Your task to perform on an android device: When is my next appointment? Image 0: 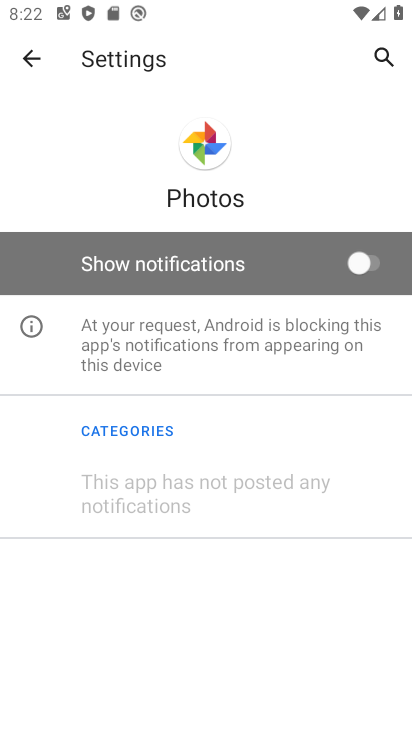
Step 0: press home button
Your task to perform on an android device: When is my next appointment? Image 1: 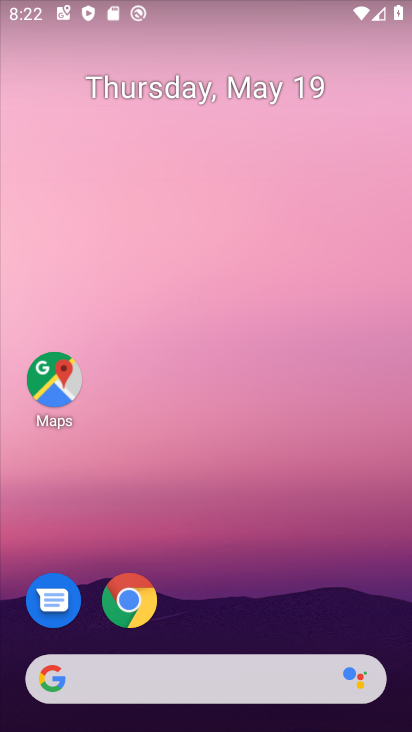
Step 1: drag from (295, 562) to (212, 9)
Your task to perform on an android device: When is my next appointment? Image 2: 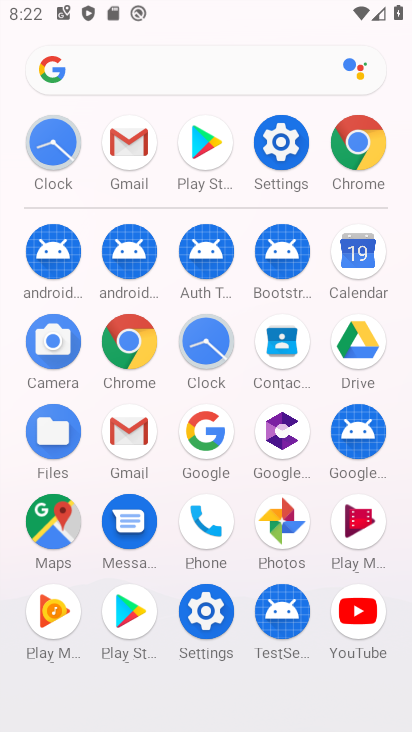
Step 2: click (355, 262)
Your task to perform on an android device: When is my next appointment? Image 3: 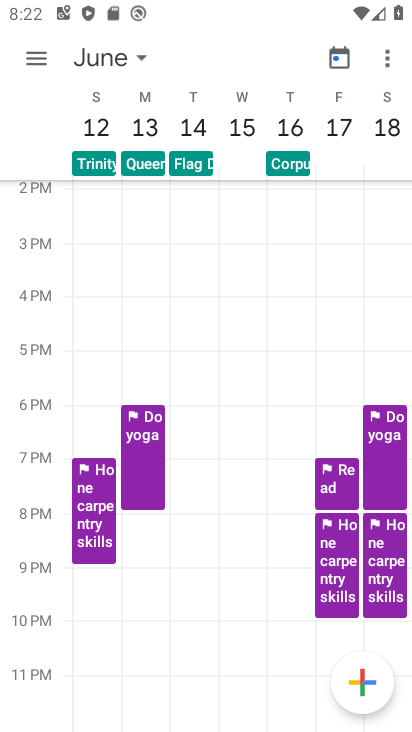
Step 3: click (331, 57)
Your task to perform on an android device: When is my next appointment? Image 4: 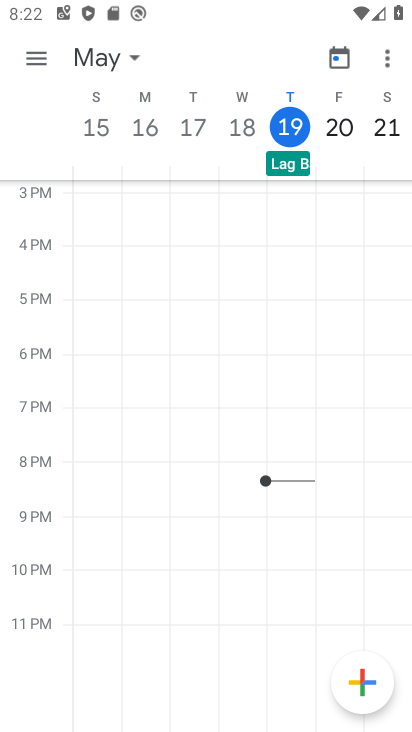
Step 4: click (22, 56)
Your task to perform on an android device: When is my next appointment? Image 5: 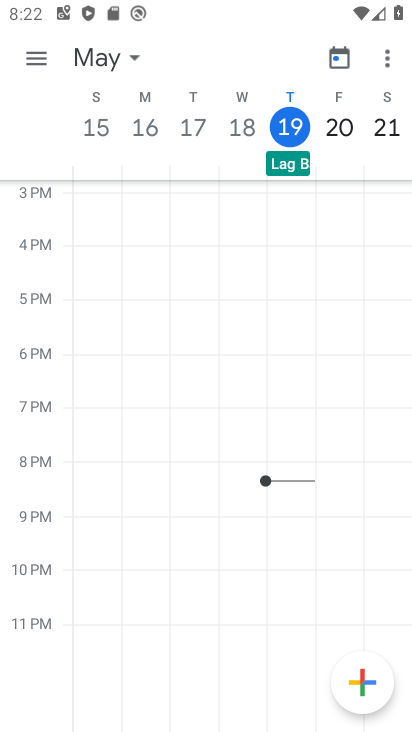
Step 5: click (33, 64)
Your task to perform on an android device: When is my next appointment? Image 6: 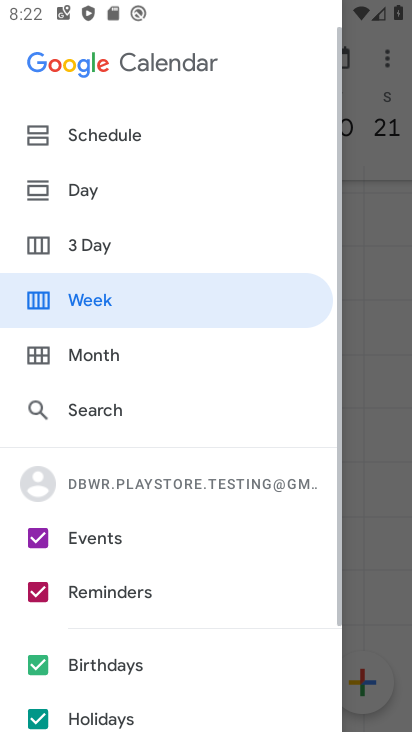
Step 6: click (78, 146)
Your task to perform on an android device: When is my next appointment? Image 7: 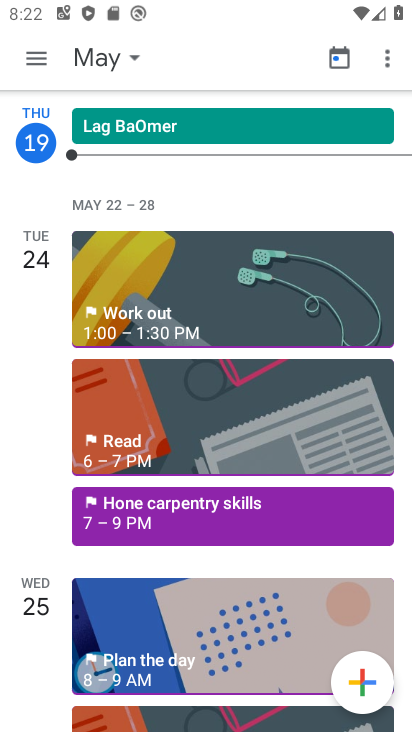
Step 7: drag from (156, 352) to (177, 454)
Your task to perform on an android device: When is my next appointment? Image 8: 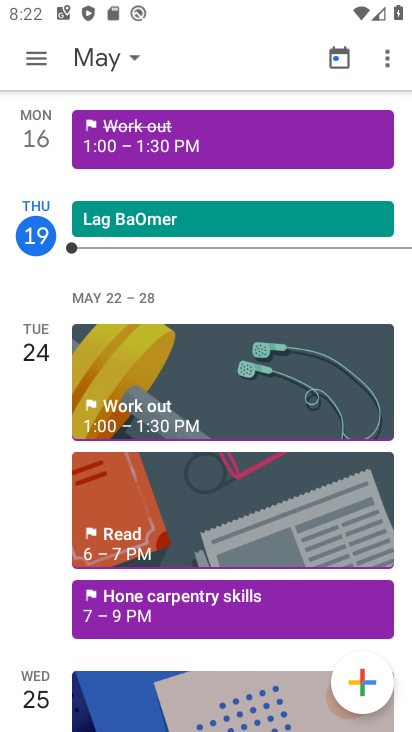
Step 8: click (70, 248)
Your task to perform on an android device: When is my next appointment? Image 9: 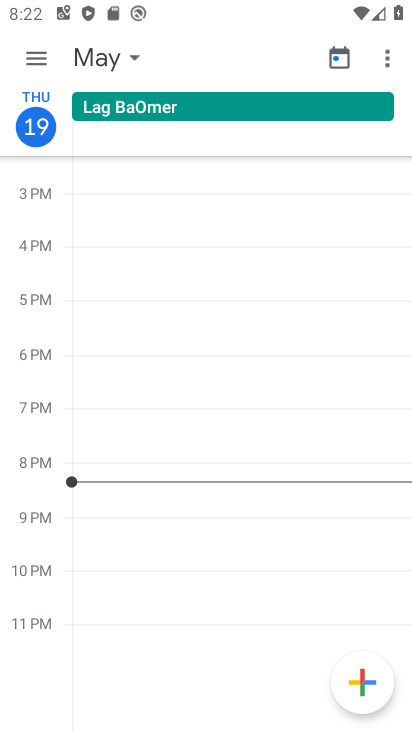
Step 9: click (74, 481)
Your task to perform on an android device: When is my next appointment? Image 10: 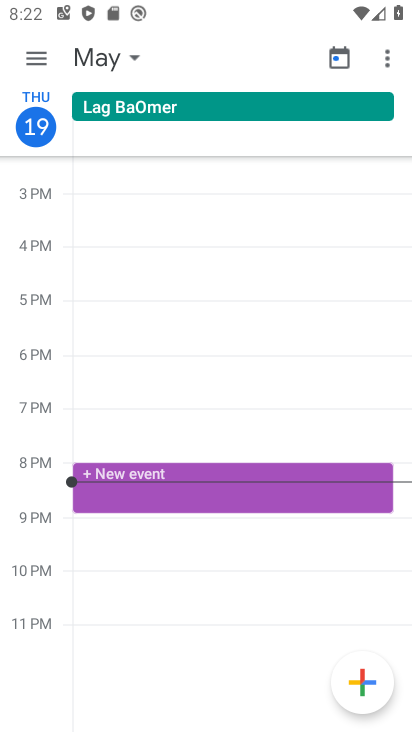
Step 10: click (141, 445)
Your task to perform on an android device: When is my next appointment? Image 11: 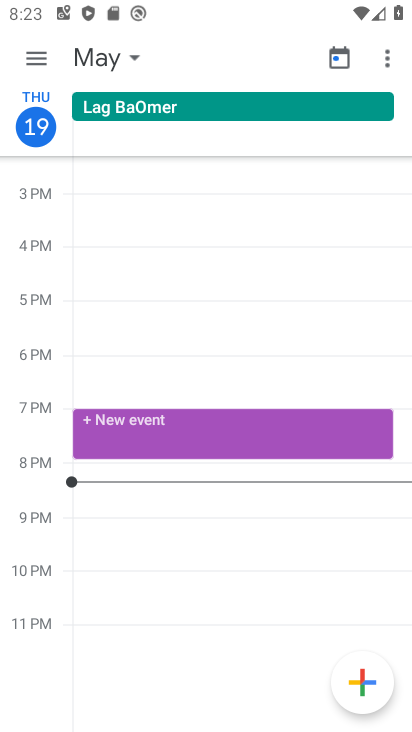
Step 11: click (35, 64)
Your task to perform on an android device: When is my next appointment? Image 12: 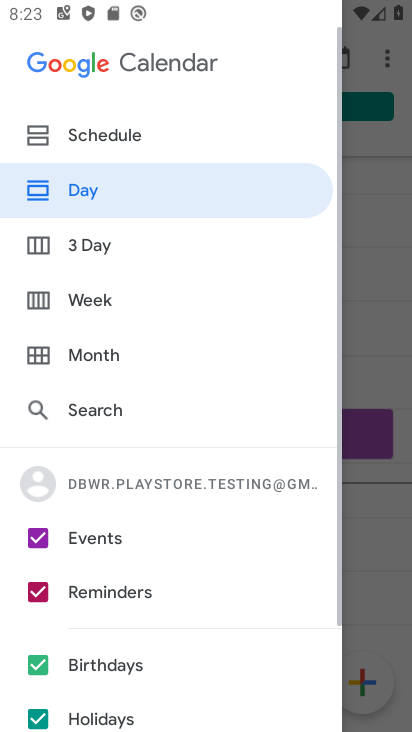
Step 12: click (58, 128)
Your task to perform on an android device: When is my next appointment? Image 13: 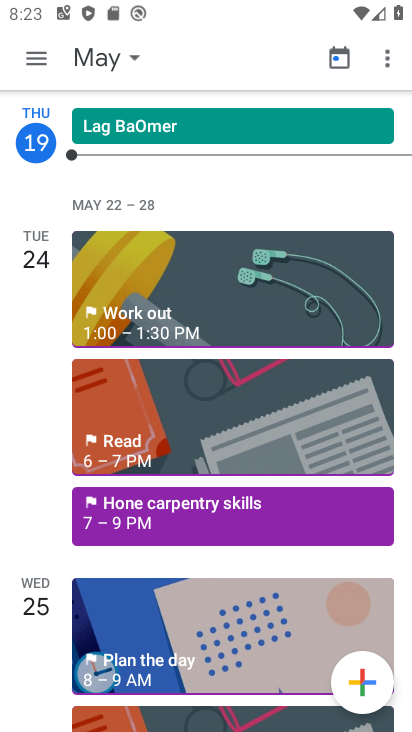
Step 13: drag from (162, 242) to (199, 331)
Your task to perform on an android device: When is my next appointment? Image 14: 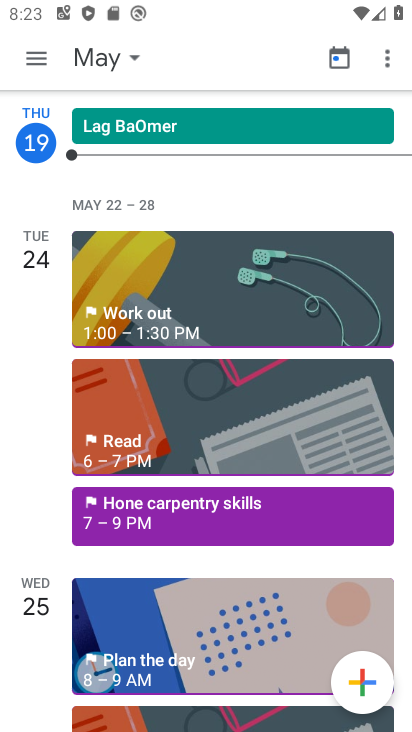
Step 14: click (113, 214)
Your task to perform on an android device: When is my next appointment? Image 15: 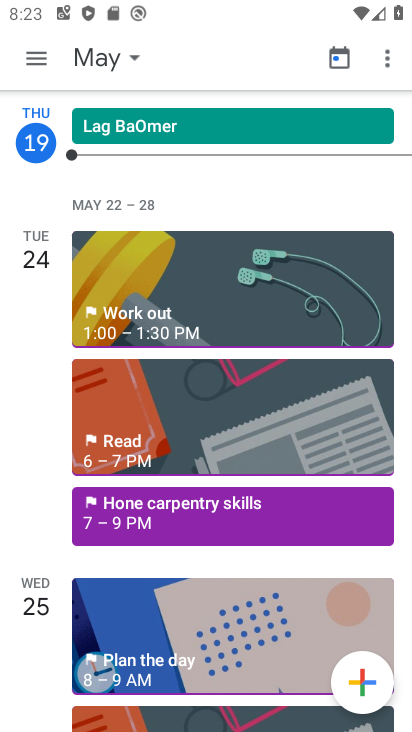
Step 15: click (108, 207)
Your task to perform on an android device: When is my next appointment? Image 16: 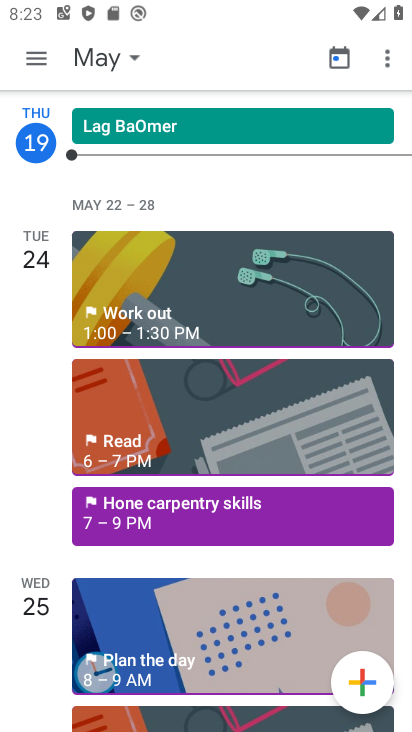
Step 16: click (74, 205)
Your task to perform on an android device: When is my next appointment? Image 17: 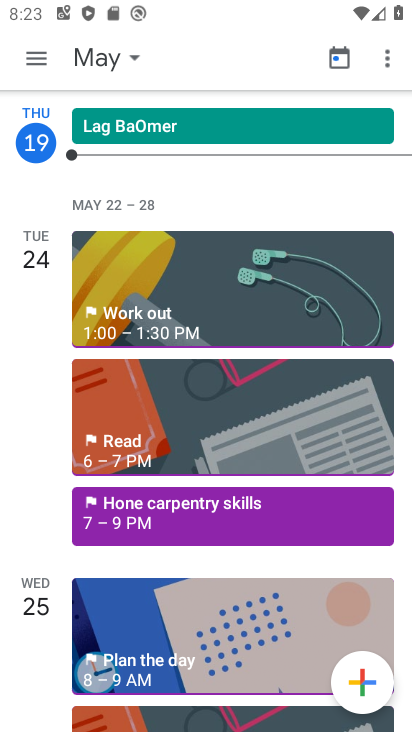
Step 17: click (163, 503)
Your task to perform on an android device: When is my next appointment? Image 18: 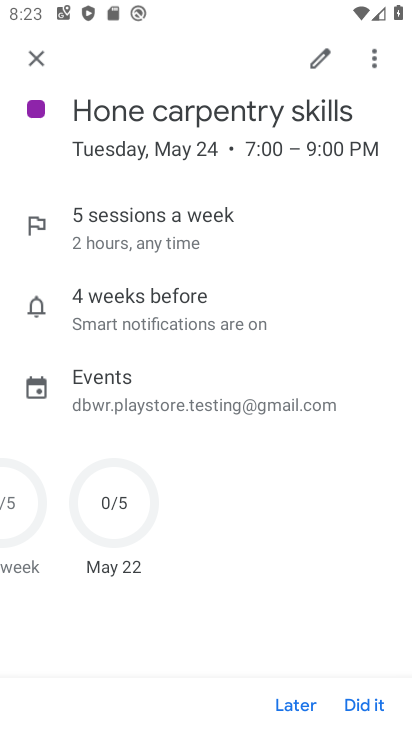
Step 18: task complete